Your task to perform on an android device: move an email to a new category in the gmail app Image 0: 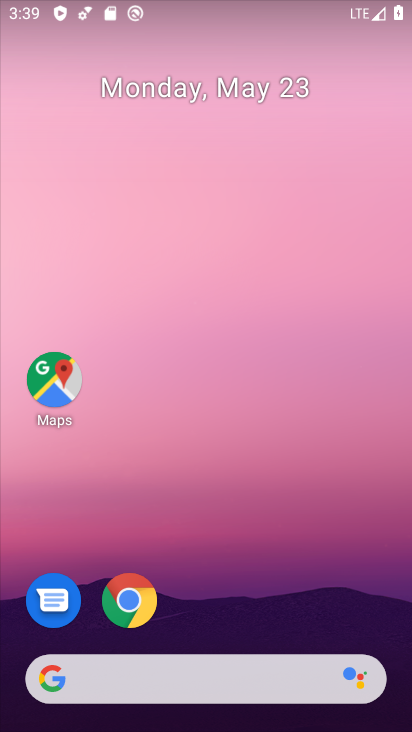
Step 0: drag from (281, 643) to (294, 6)
Your task to perform on an android device: move an email to a new category in the gmail app Image 1: 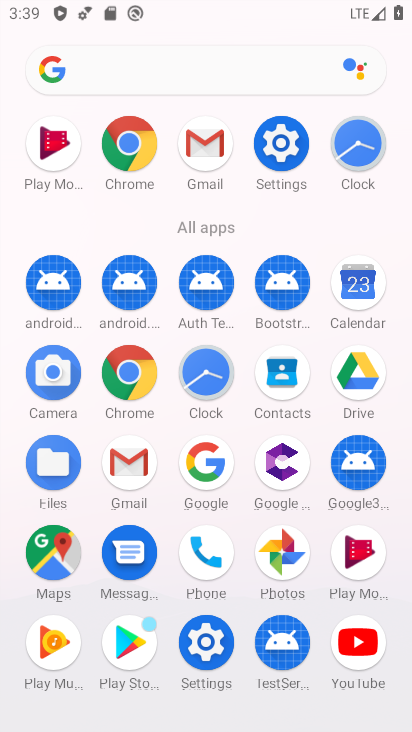
Step 1: click (211, 149)
Your task to perform on an android device: move an email to a new category in the gmail app Image 2: 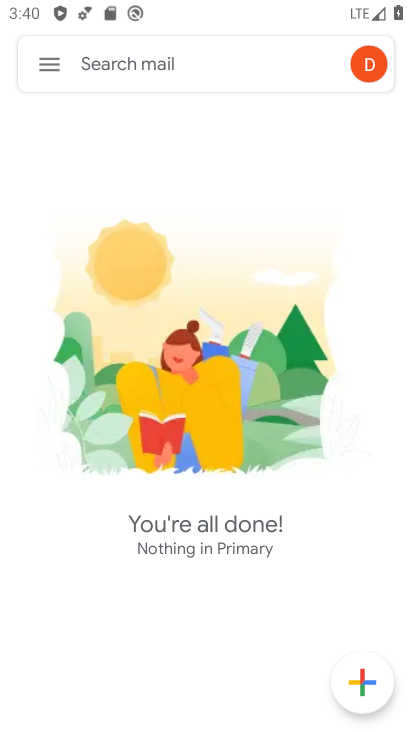
Step 2: click (41, 65)
Your task to perform on an android device: move an email to a new category in the gmail app Image 3: 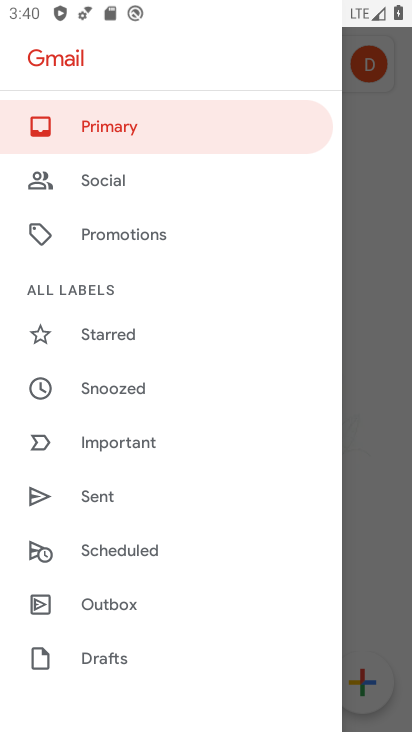
Step 3: drag from (191, 605) to (178, 360)
Your task to perform on an android device: move an email to a new category in the gmail app Image 4: 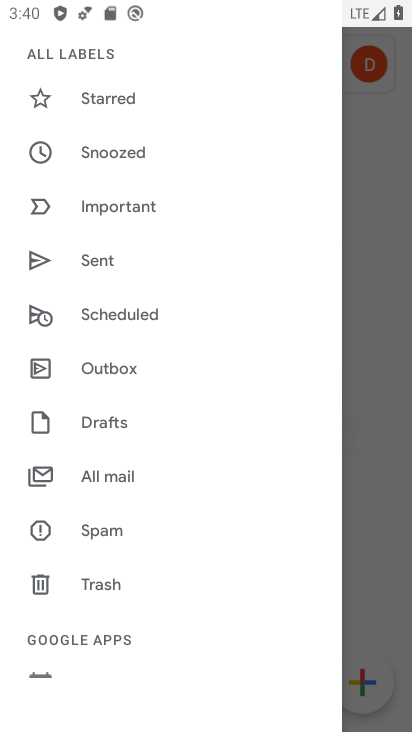
Step 4: click (84, 474)
Your task to perform on an android device: move an email to a new category in the gmail app Image 5: 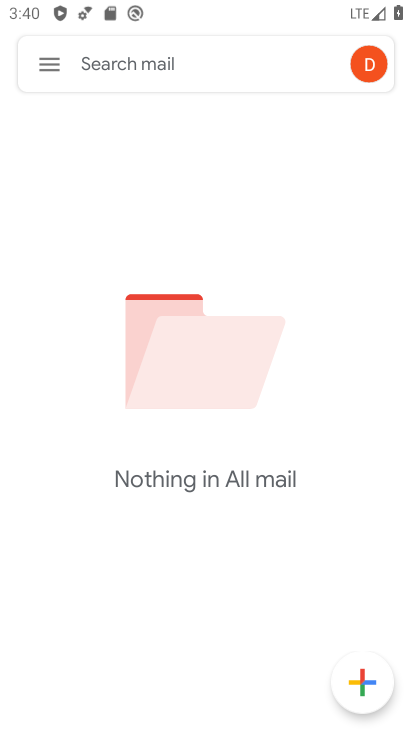
Step 5: task complete